Your task to perform on an android device: Go to Google Image 0: 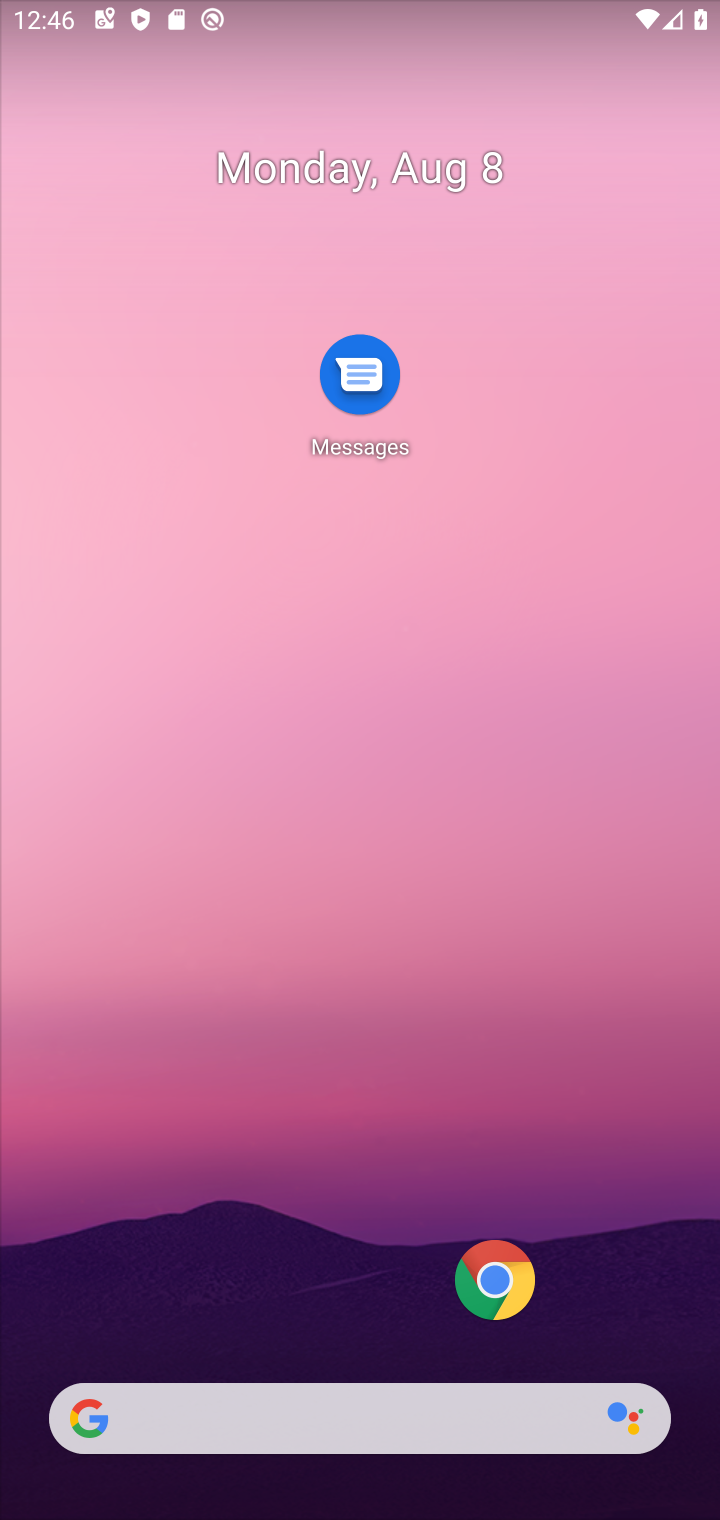
Step 0: drag from (184, 1324) to (305, 178)
Your task to perform on an android device: Go to Google Image 1: 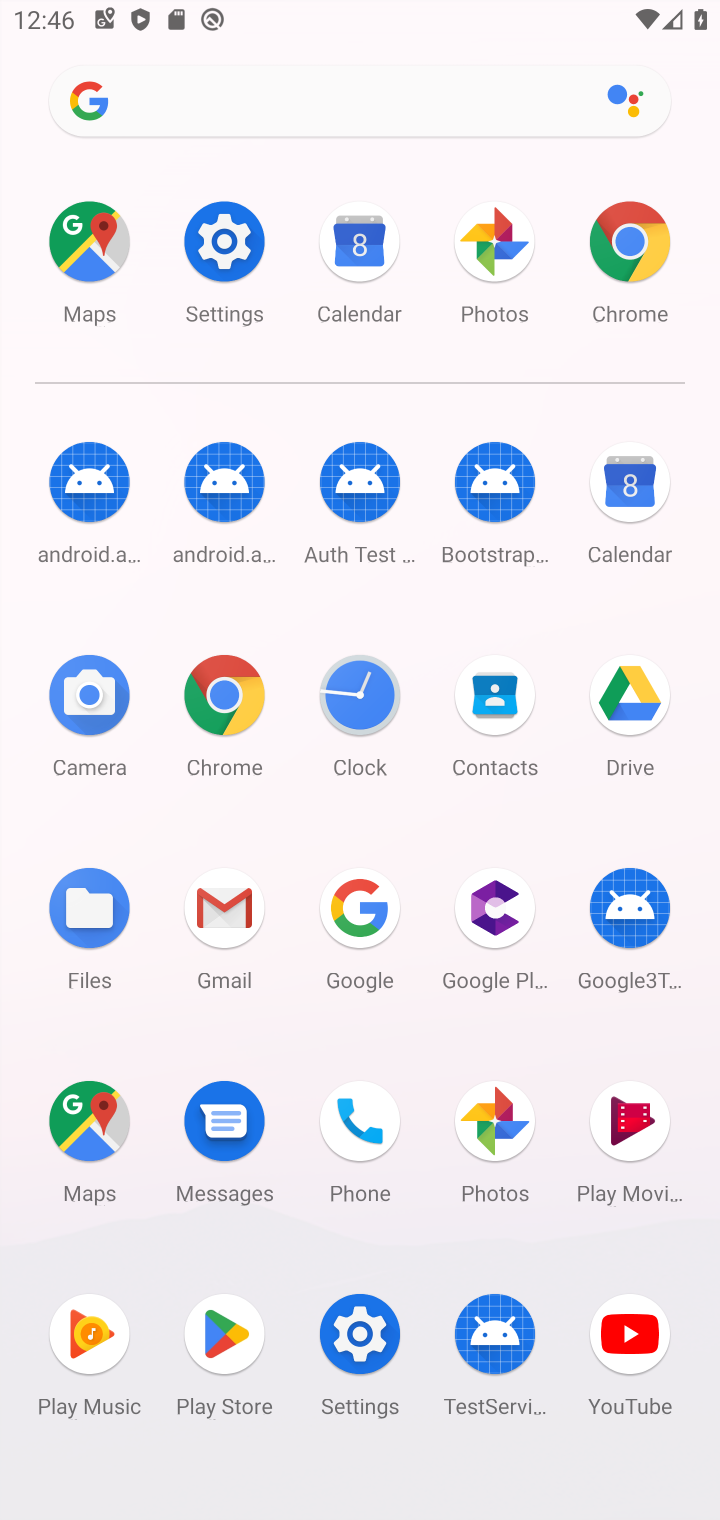
Step 1: click (375, 903)
Your task to perform on an android device: Go to Google Image 2: 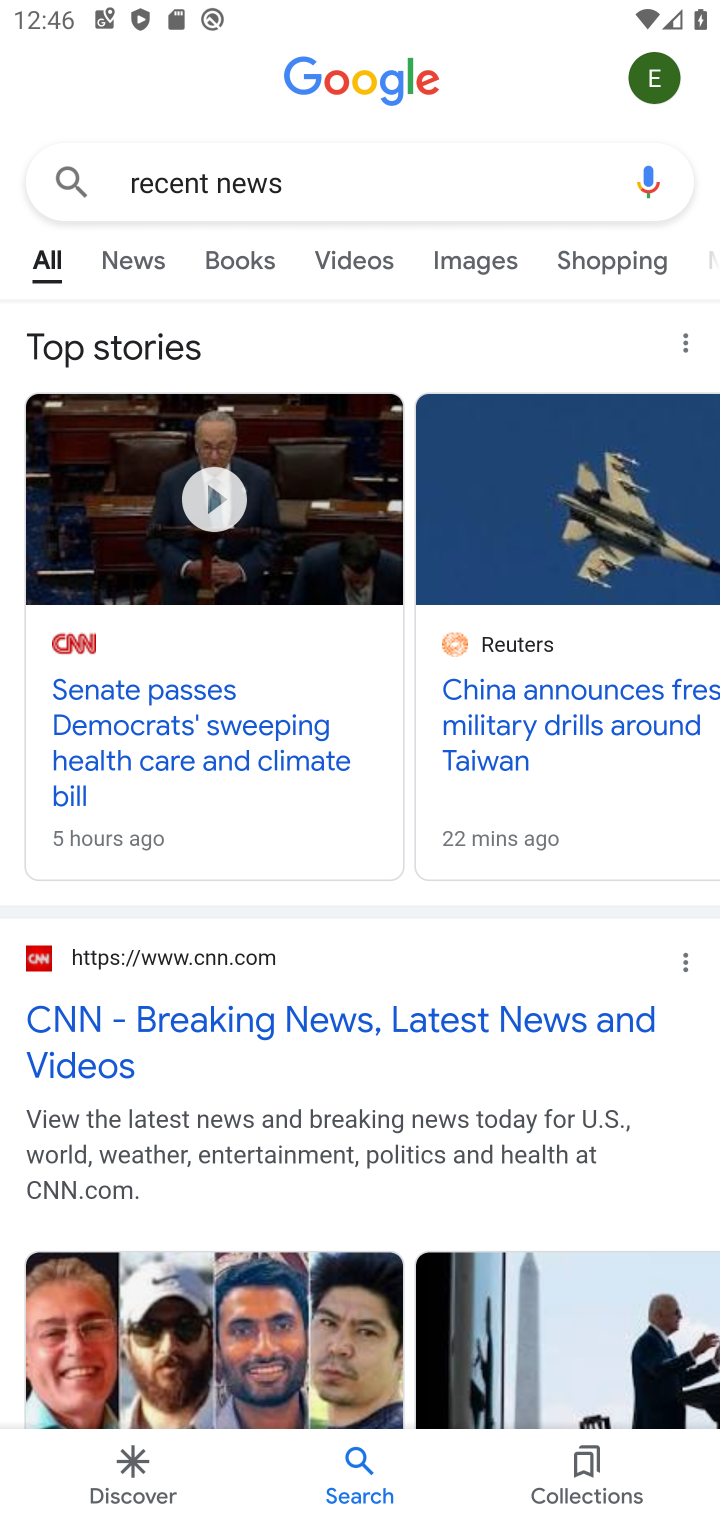
Step 2: task complete